Your task to perform on an android device: snooze an email in the gmail app Image 0: 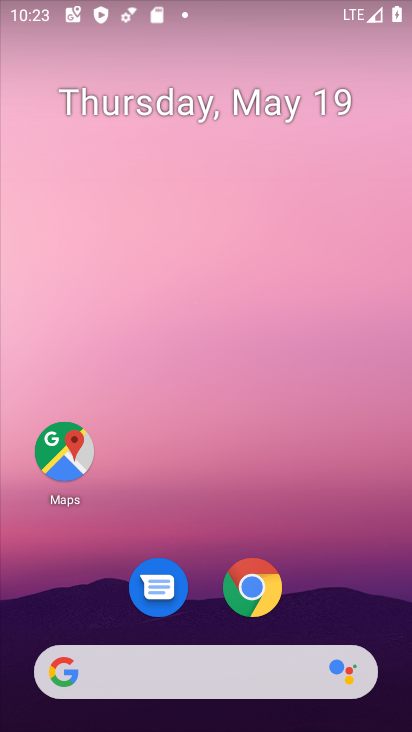
Step 0: drag from (200, 640) to (191, 301)
Your task to perform on an android device: snooze an email in the gmail app Image 1: 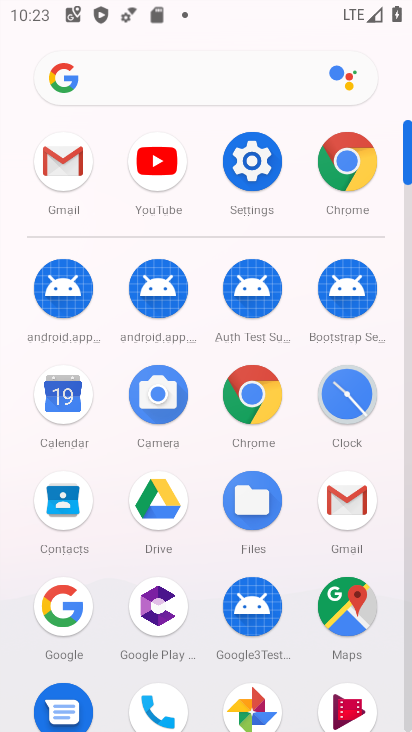
Step 1: click (63, 150)
Your task to perform on an android device: snooze an email in the gmail app Image 2: 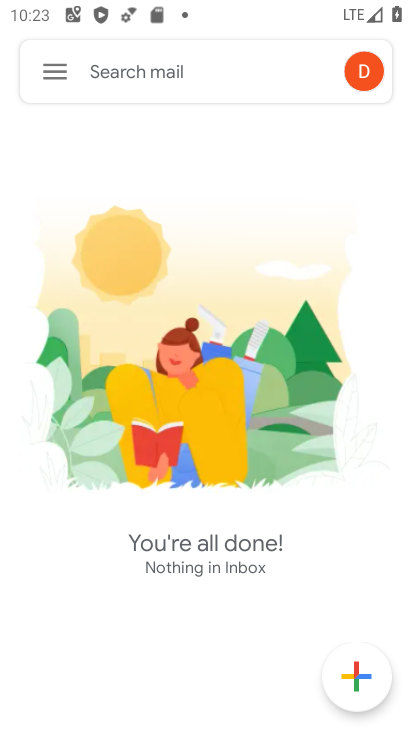
Step 2: task complete